Your task to perform on an android device: toggle wifi Image 0: 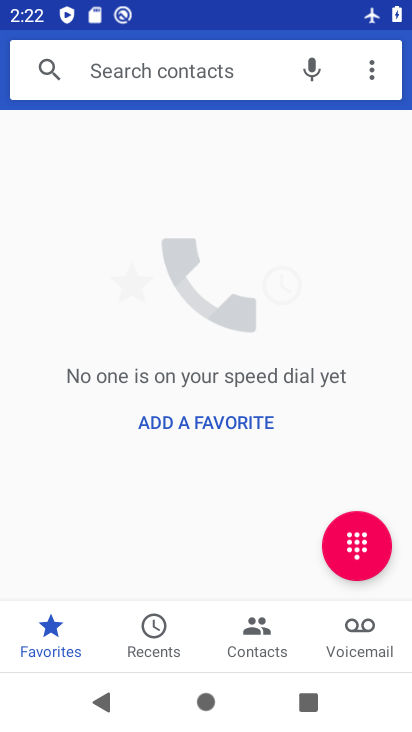
Step 0: press home button
Your task to perform on an android device: toggle wifi Image 1: 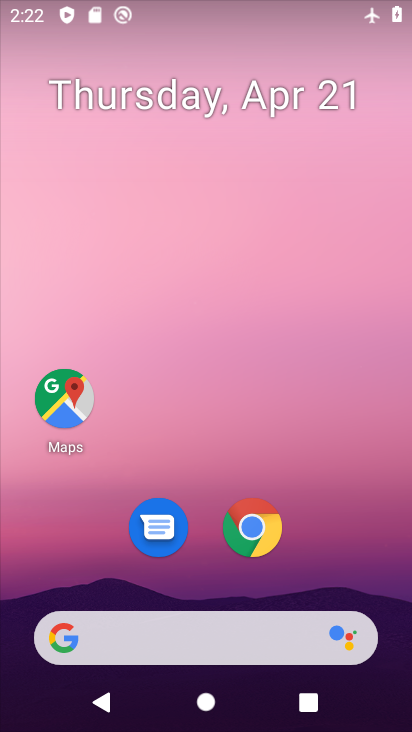
Step 1: drag from (323, 573) to (343, 115)
Your task to perform on an android device: toggle wifi Image 2: 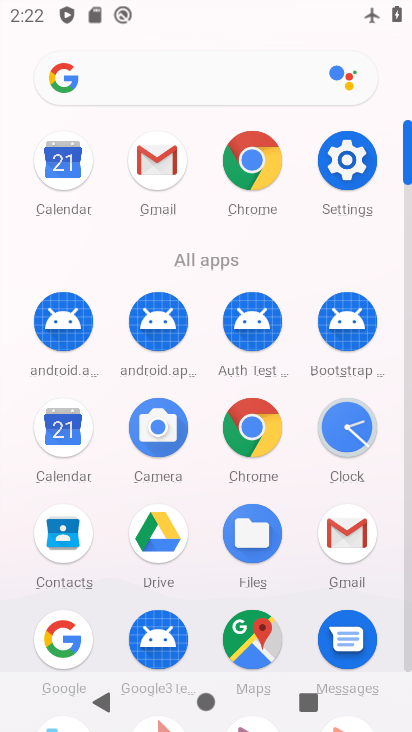
Step 2: click (338, 157)
Your task to perform on an android device: toggle wifi Image 3: 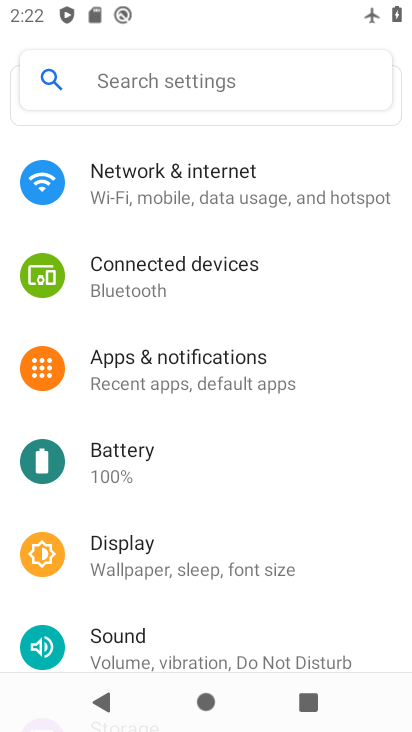
Step 3: click (171, 179)
Your task to perform on an android device: toggle wifi Image 4: 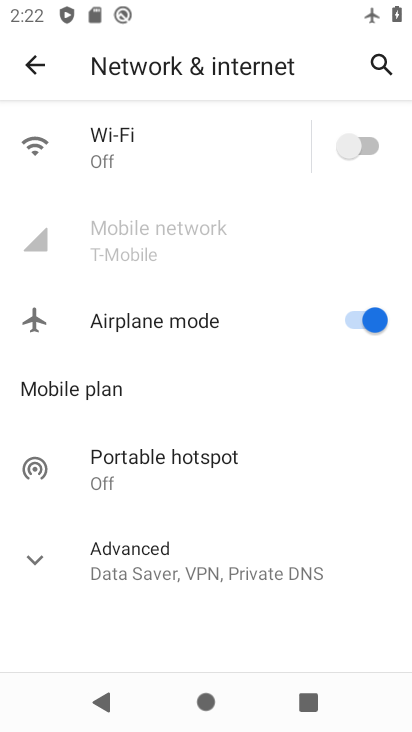
Step 4: click (347, 148)
Your task to perform on an android device: toggle wifi Image 5: 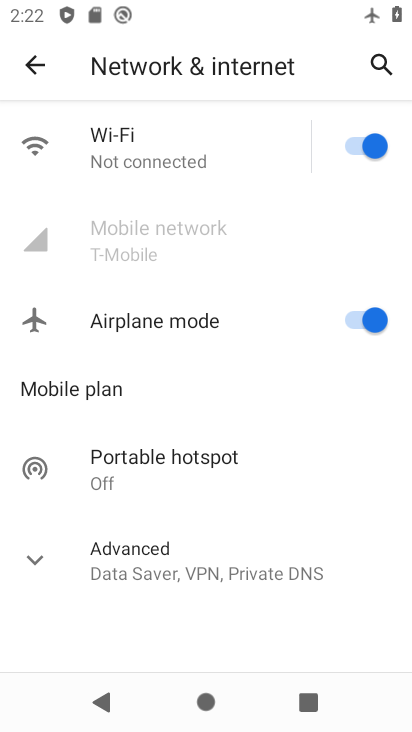
Step 5: task complete